Your task to perform on an android device: Open Yahoo.com Image 0: 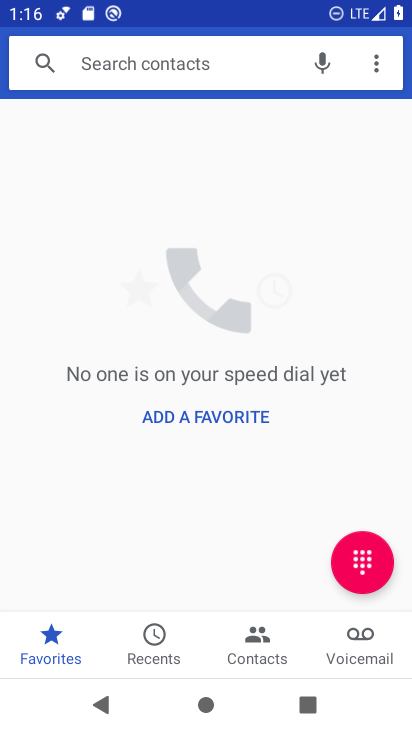
Step 0: press home button
Your task to perform on an android device: Open Yahoo.com Image 1: 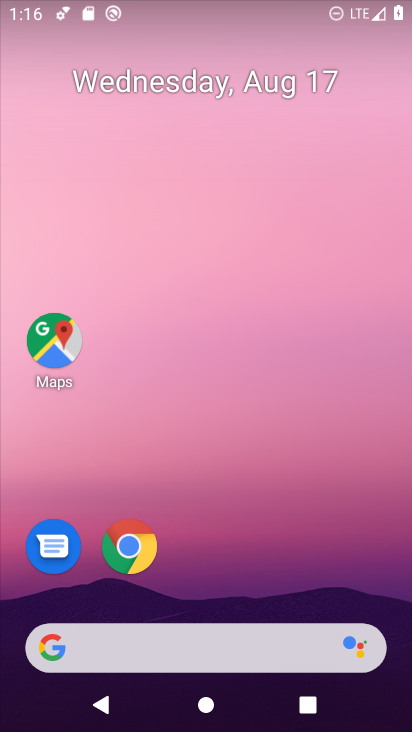
Step 1: click (129, 541)
Your task to perform on an android device: Open Yahoo.com Image 2: 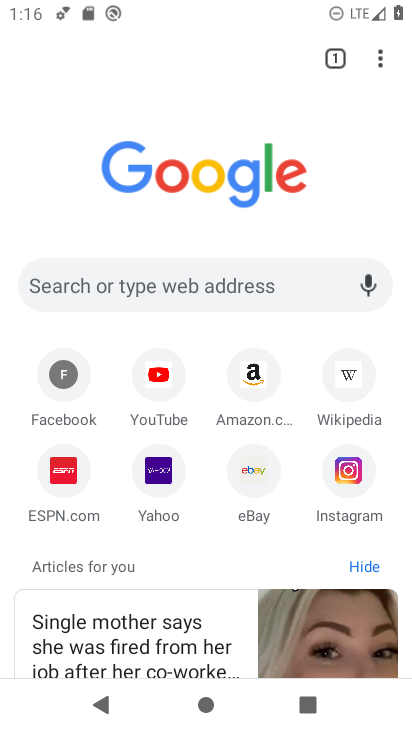
Step 2: click (151, 483)
Your task to perform on an android device: Open Yahoo.com Image 3: 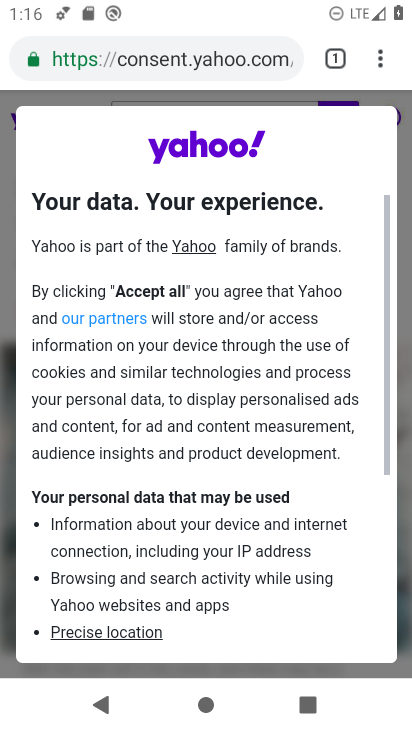
Step 3: drag from (255, 601) to (259, 360)
Your task to perform on an android device: Open Yahoo.com Image 4: 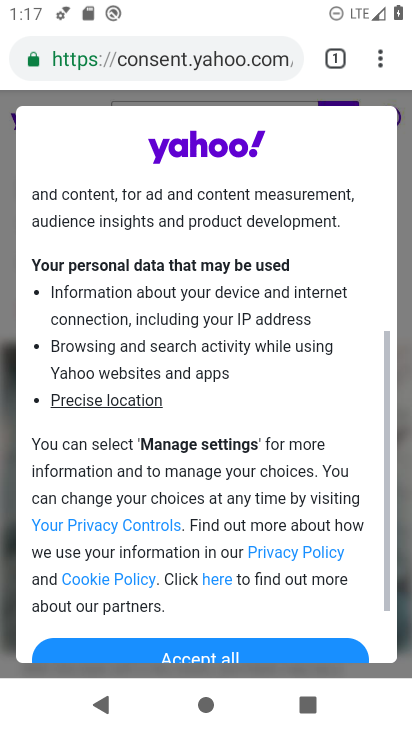
Step 4: drag from (247, 591) to (225, 327)
Your task to perform on an android device: Open Yahoo.com Image 5: 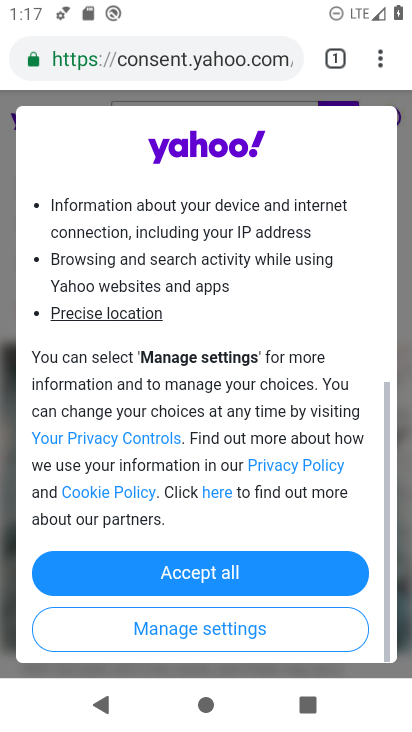
Step 5: click (203, 579)
Your task to perform on an android device: Open Yahoo.com Image 6: 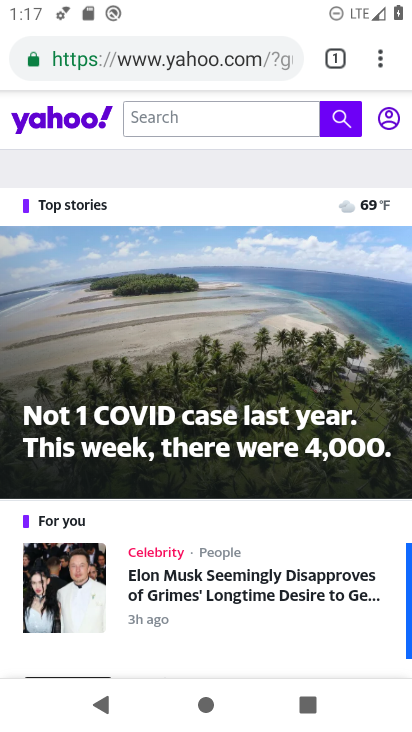
Step 6: task complete